Your task to perform on an android device: allow cookies in the chrome app Image 0: 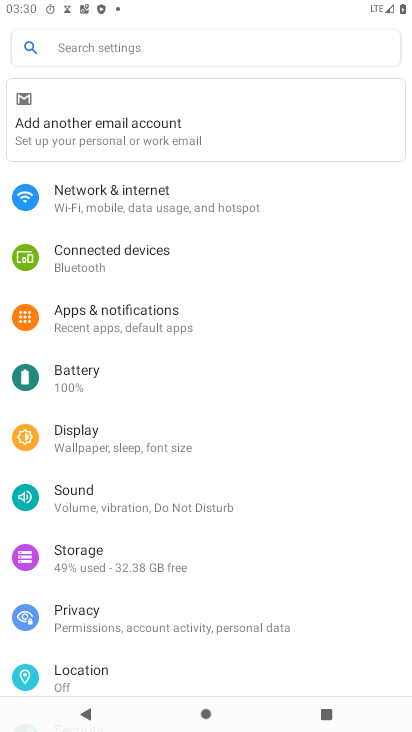
Step 0: press home button
Your task to perform on an android device: allow cookies in the chrome app Image 1: 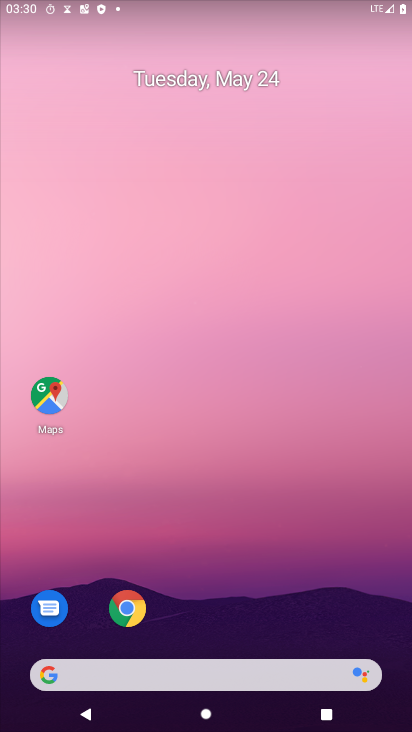
Step 1: click (142, 605)
Your task to perform on an android device: allow cookies in the chrome app Image 2: 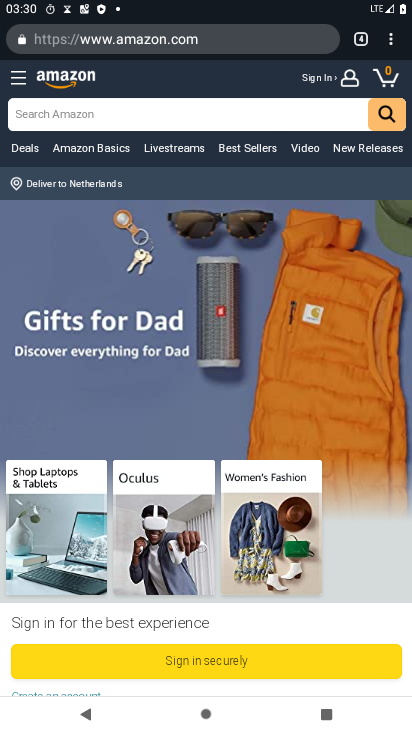
Step 2: click (392, 39)
Your task to perform on an android device: allow cookies in the chrome app Image 3: 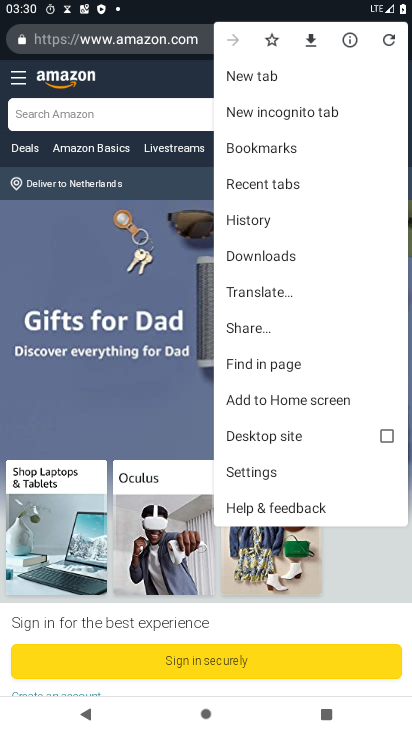
Step 3: click (275, 484)
Your task to perform on an android device: allow cookies in the chrome app Image 4: 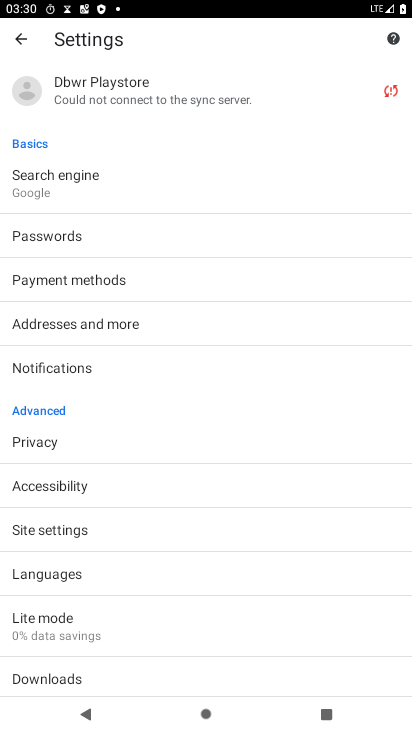
Step 4: click (163, 538)
Your task to perform on an android device: allow cookies in the chrome app Image 5: 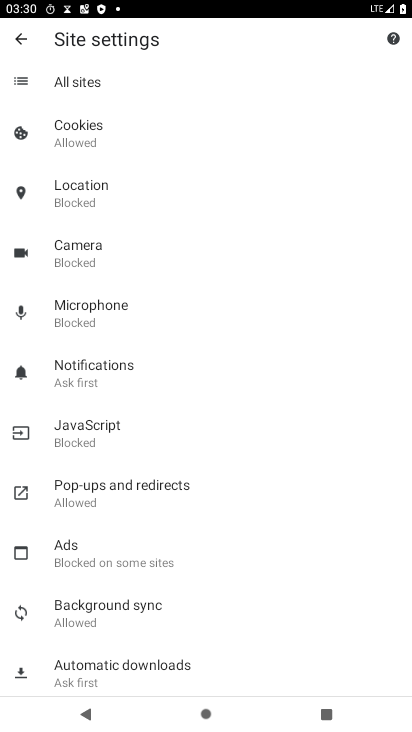
Step 5: click (109, 139)
Your task to perform on an android device: allow cookies in the chrome app Image 6: 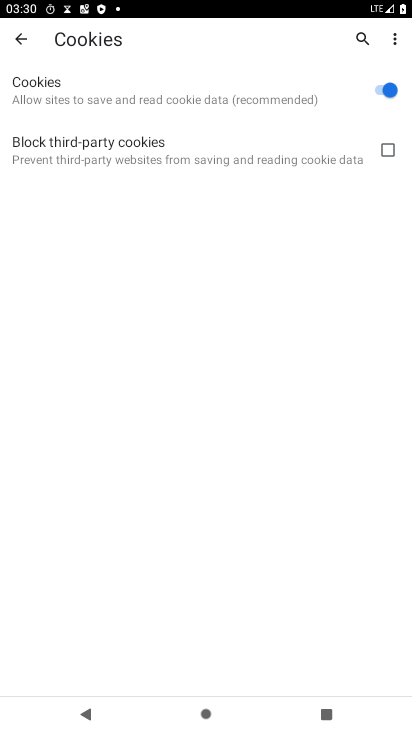
Step 6: task complete